Your task to perform on an android device: open app "Messages" Image 0: 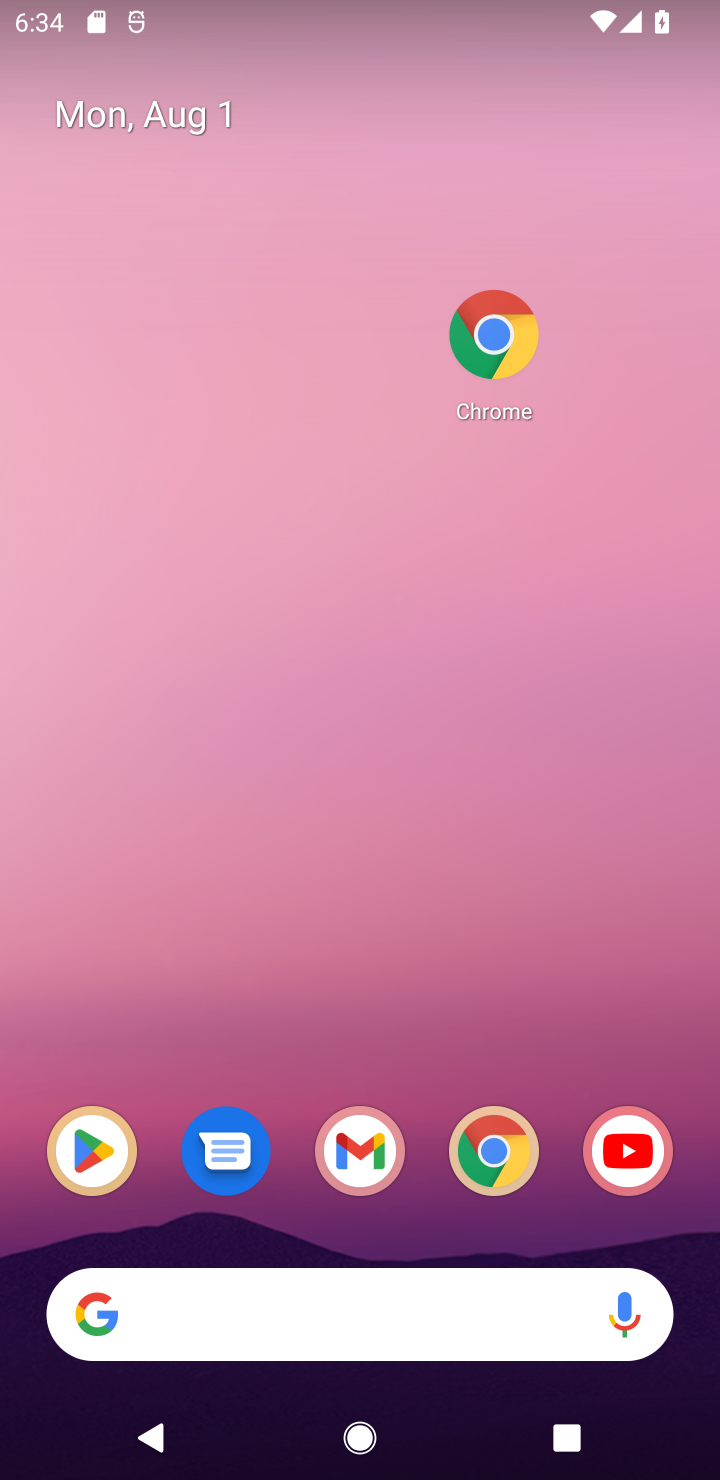
Step 0: click (91, 1177)
Your task to perform on an android device: open app "Messages" Image 1: 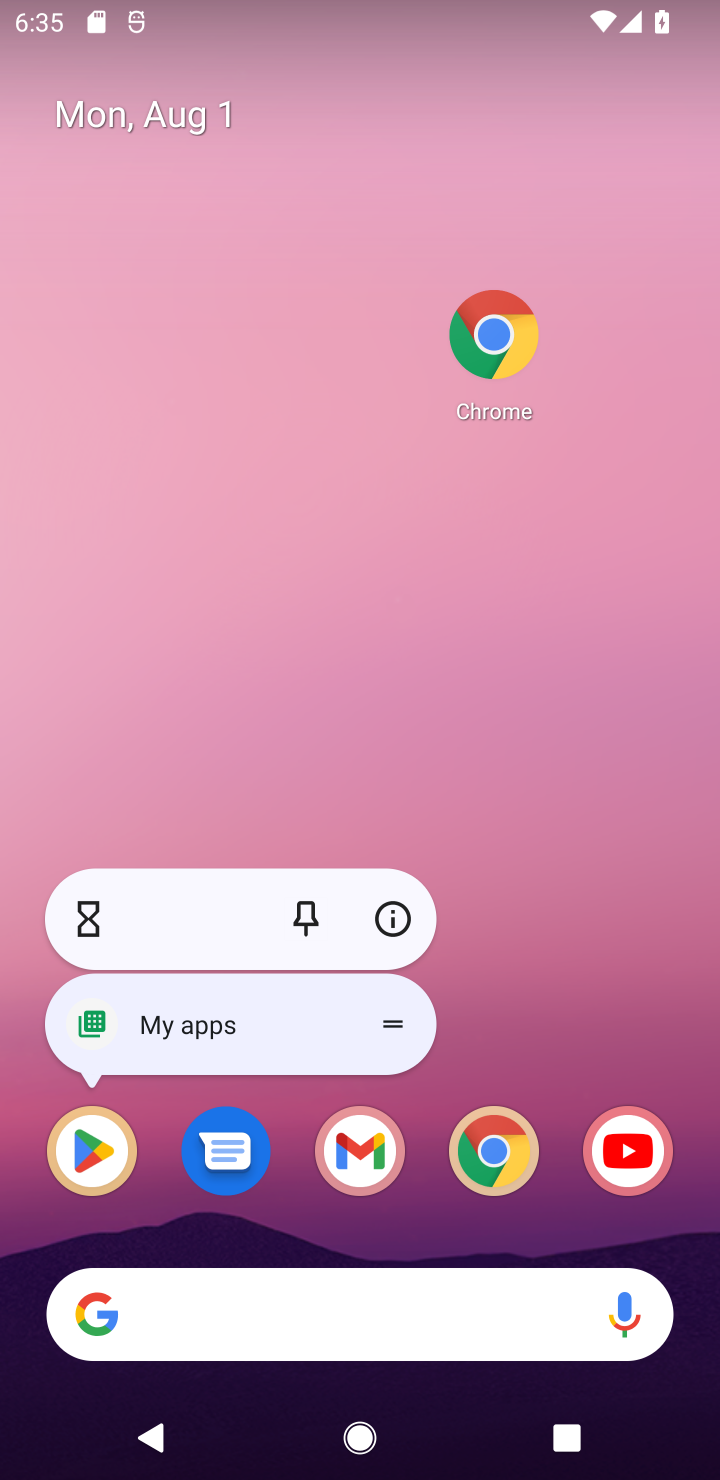
Step 1: click (91, 1156)
Your task to perform on an android device: open app "Messages" Image 2: 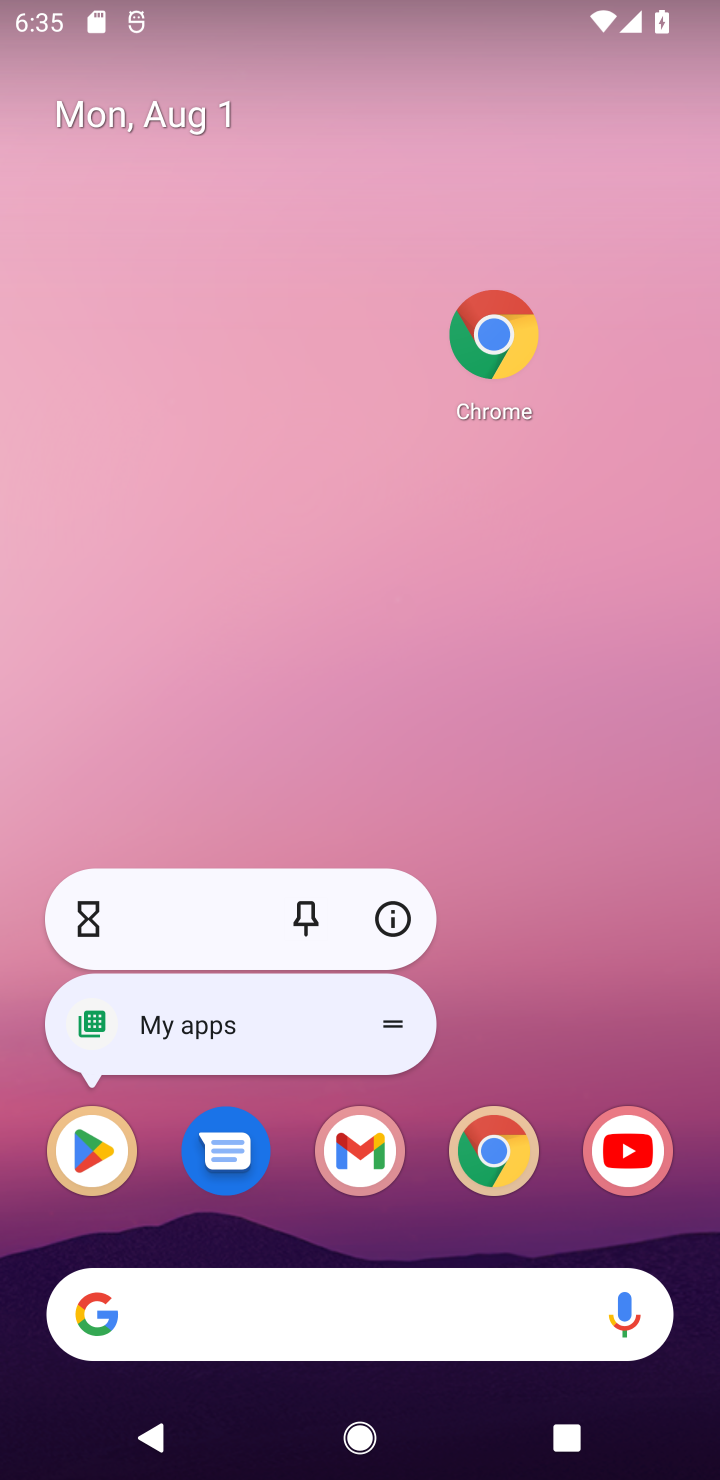
Step 2: click (91, 1154)
Your task to perform on an android device: open app "Messages" Image 3: 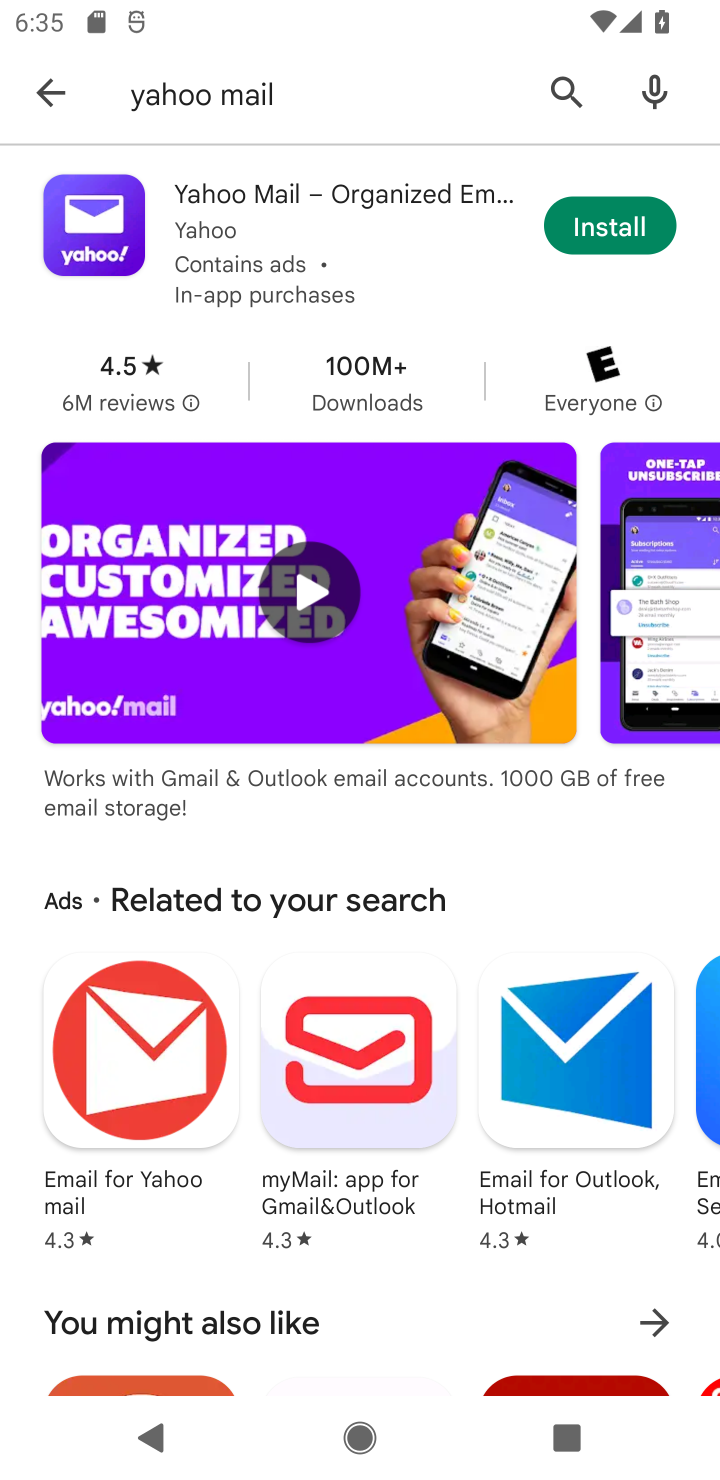
Step 3: click (568, 90)
Your task to perform on an android device: open app "Messages" Image 4: 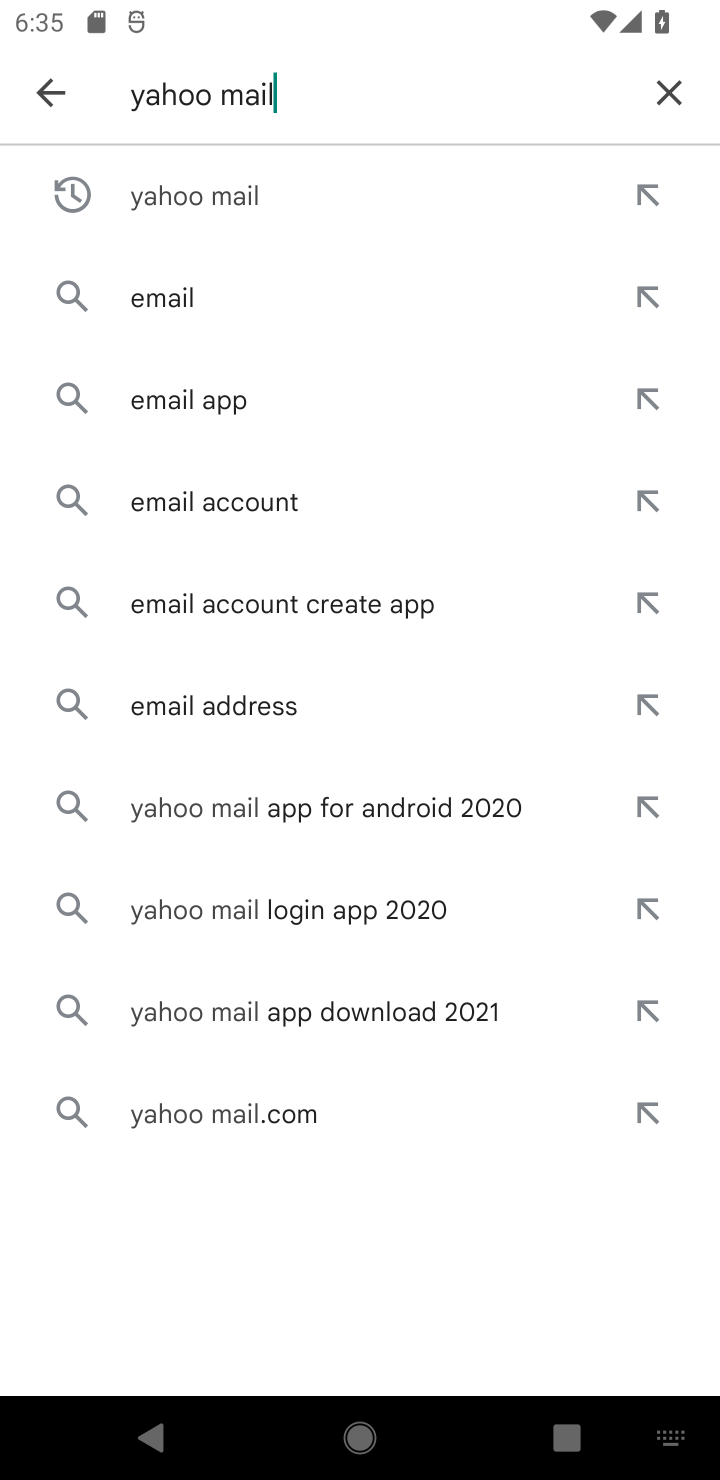
Step 4: click (652, 90)
Your task to perform on an android device: open app "Messages" Image 5: 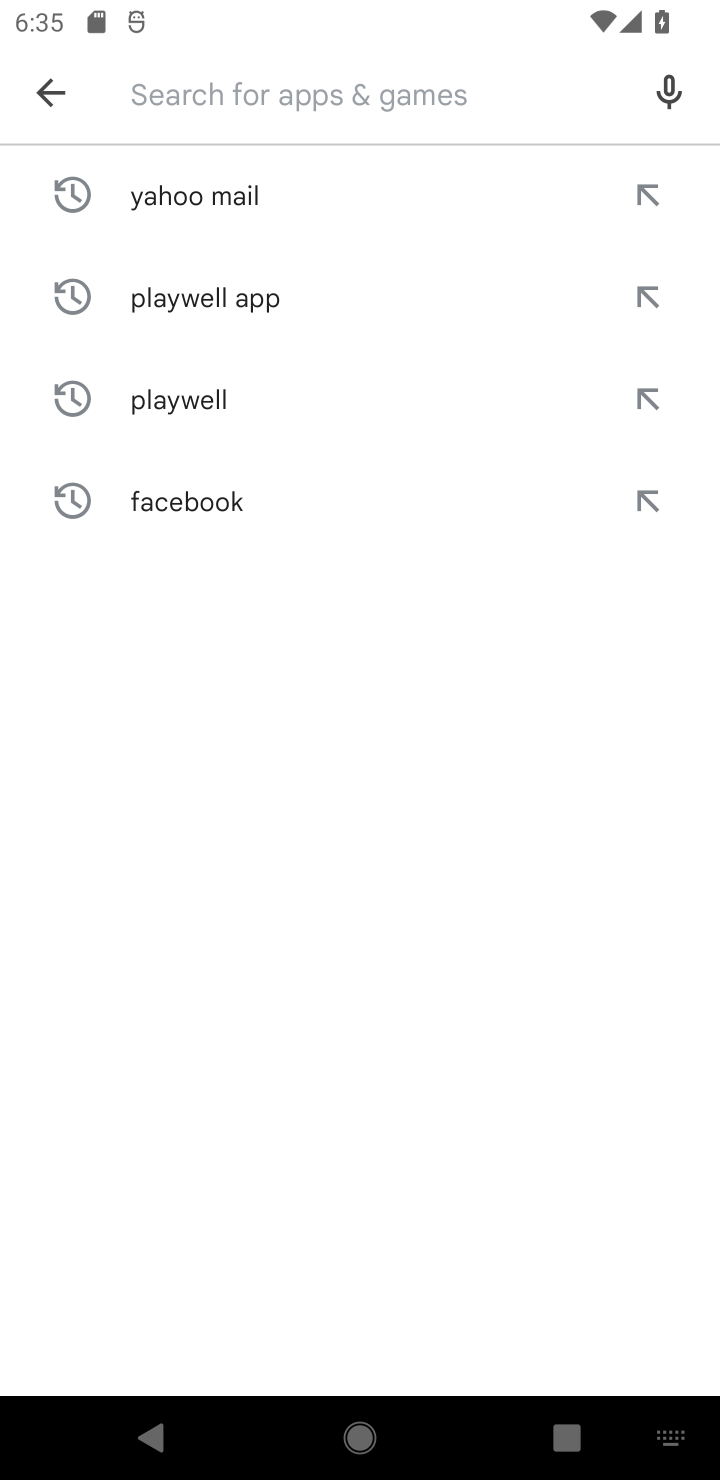
Step 5: type "Messages"
Your task to perform on an android device: open app "Messages" Image 6: 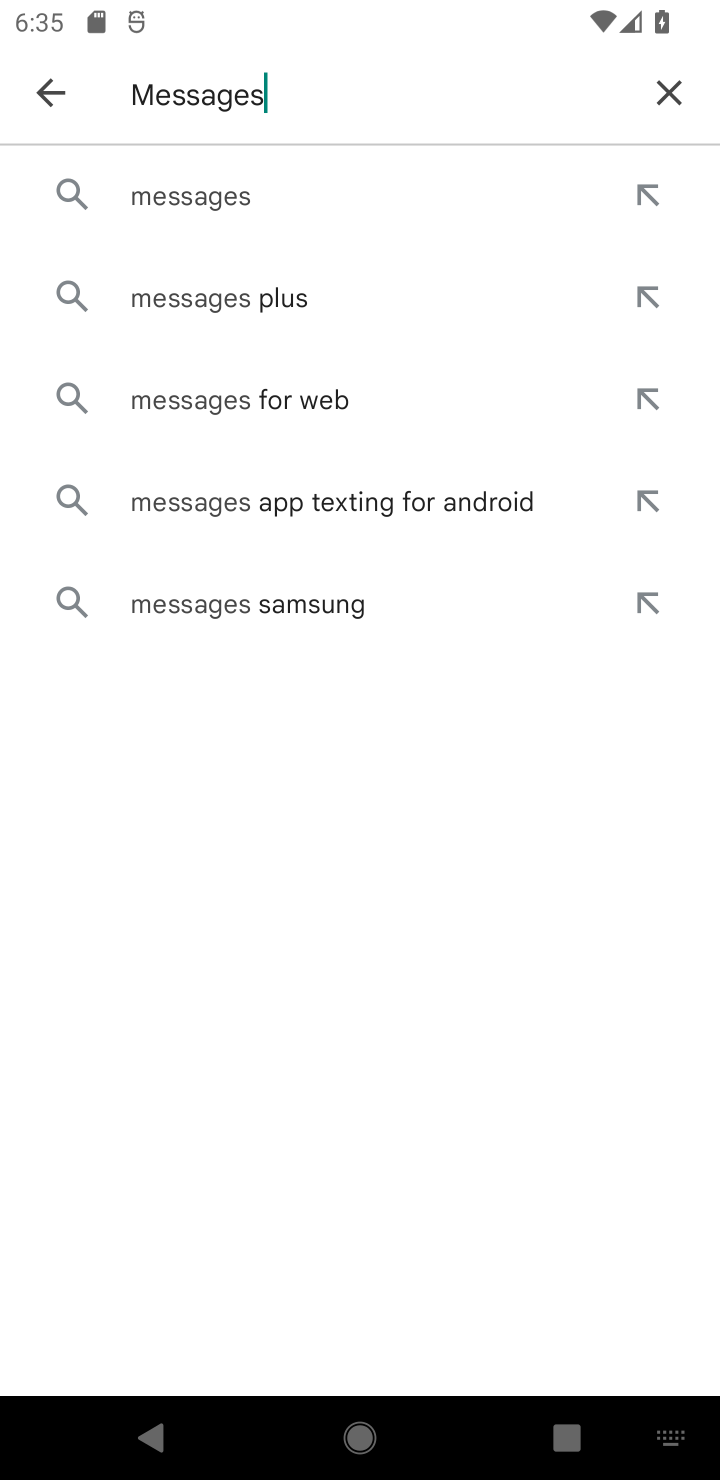
Step 6: click (177, 187)
Your task to perform on an android device: open app "Messages" Image 7: 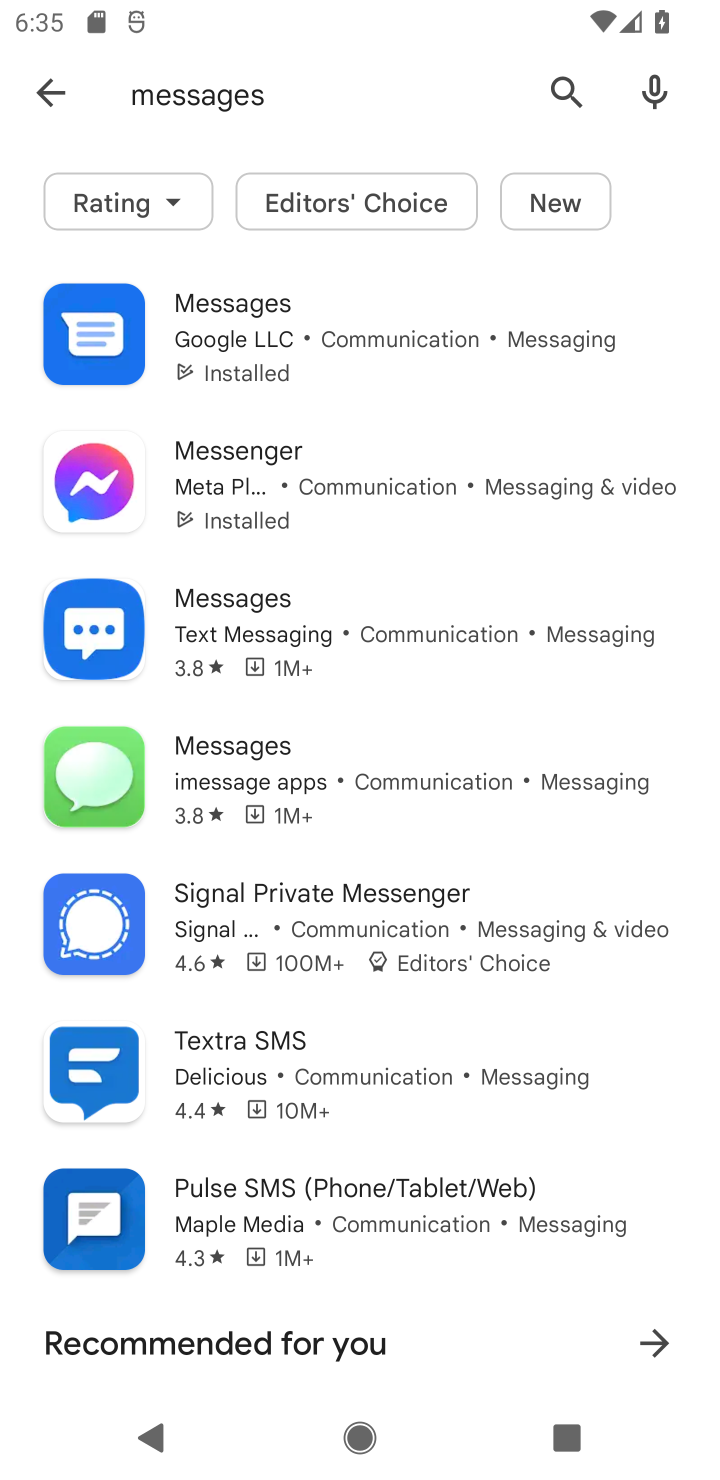
Step 7: click (202, 338)
Your task to perform on an android device: open app "Messages" Image 8: 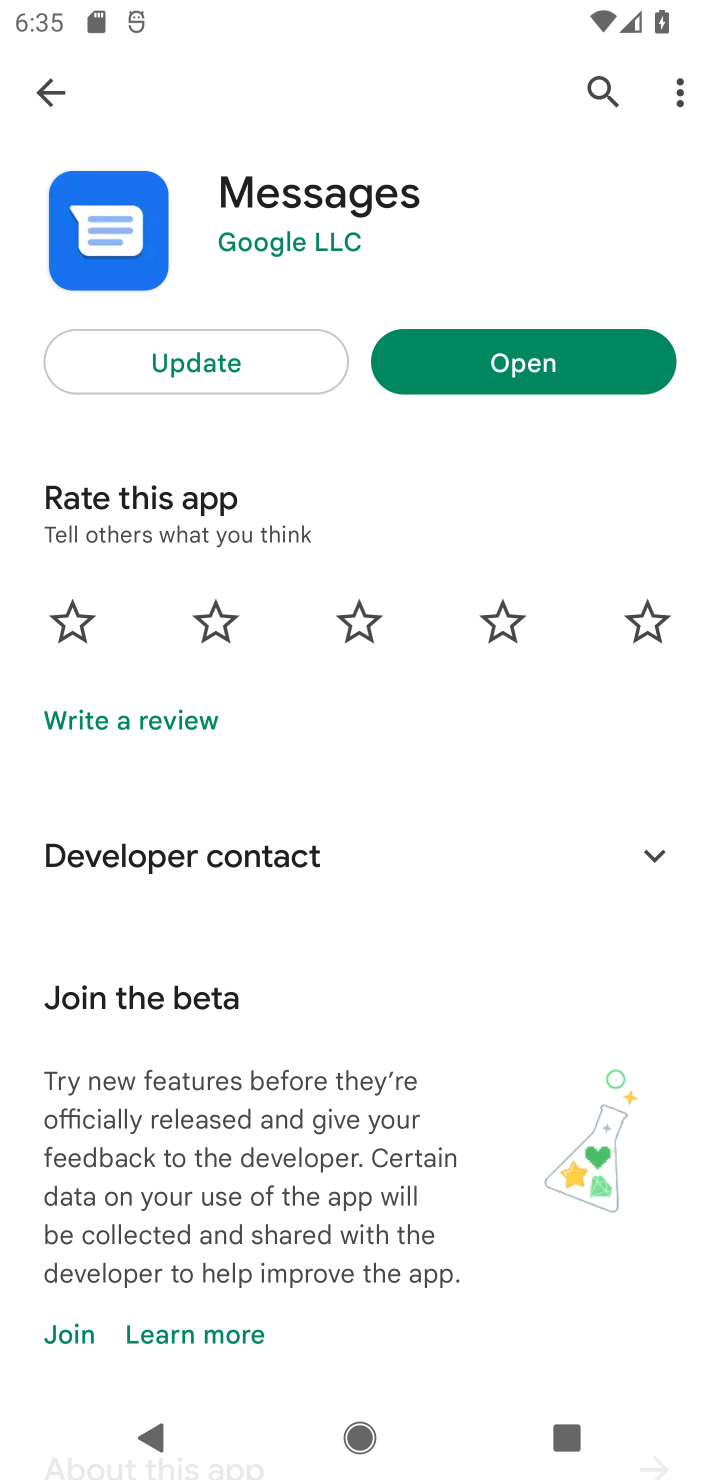
Step 8: click (566, 368)
Your task to perform on an android device: open app "Messages" Image 9: 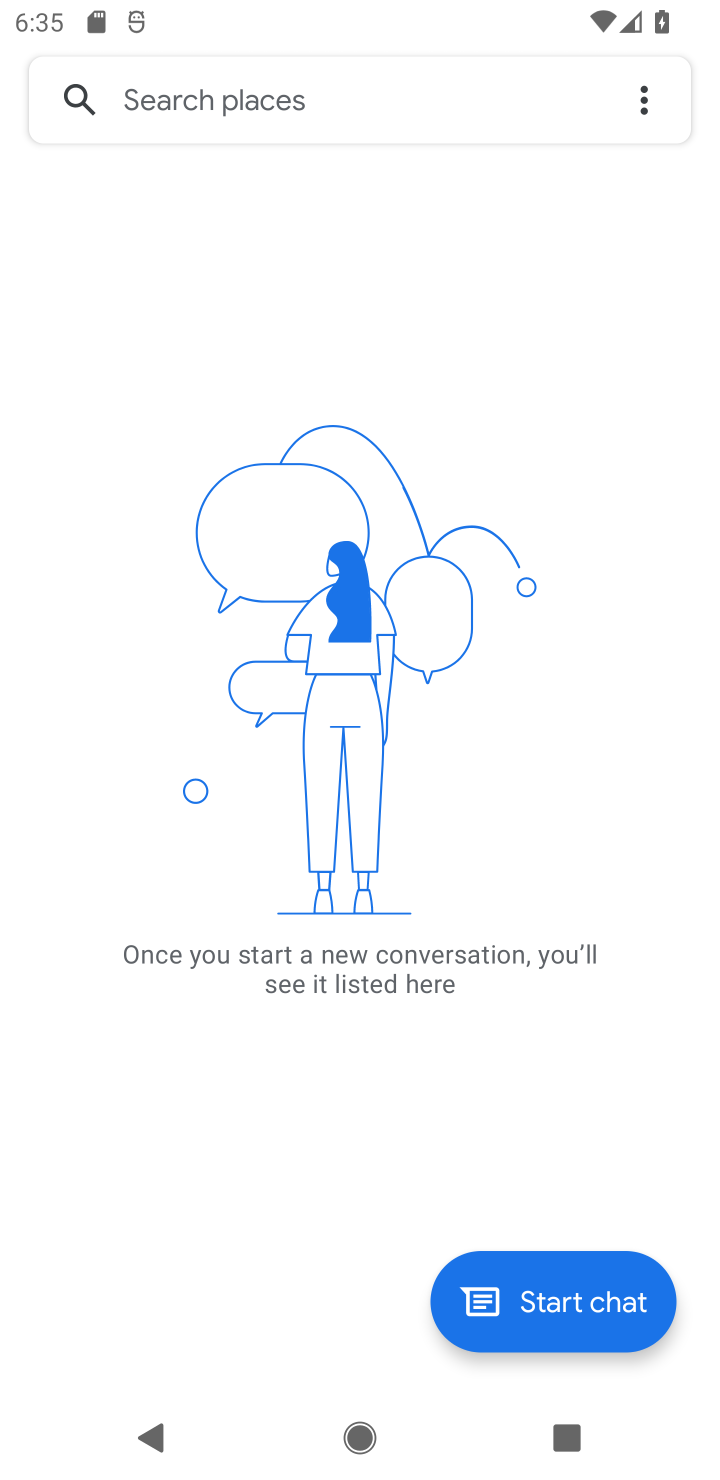
Step 9: task complete